Your task to perform on an android device: create a new album in the google photos Image 0: 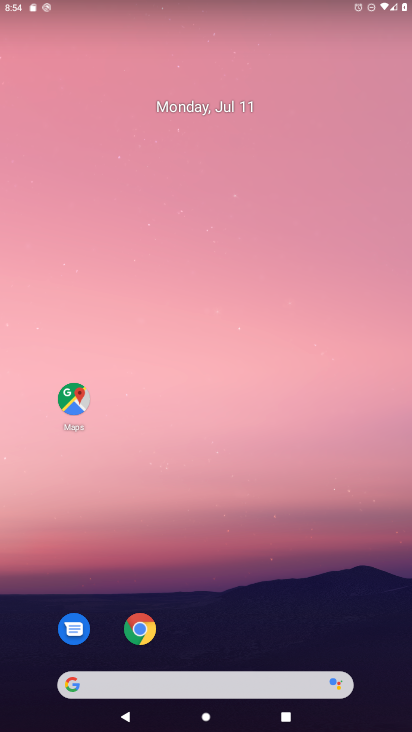
Step 0: drag from (240, 617) to (297, 109)
Your task to perform on an android device: create a new album in the google photos Image 1: 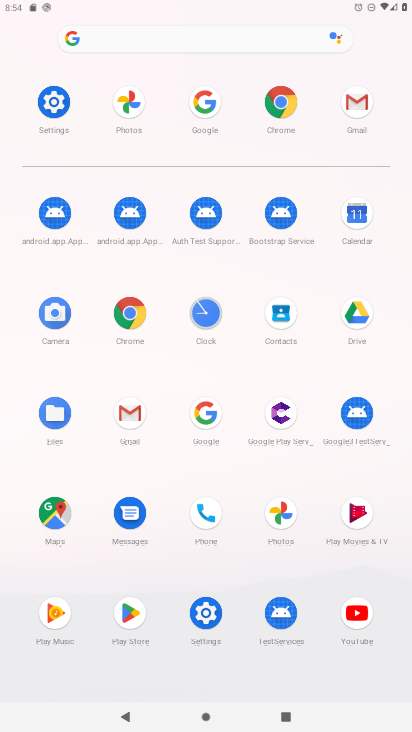
Step 1: click (280, 511)
Your task to perform on an android device: create a new album in the google photos Image 2: 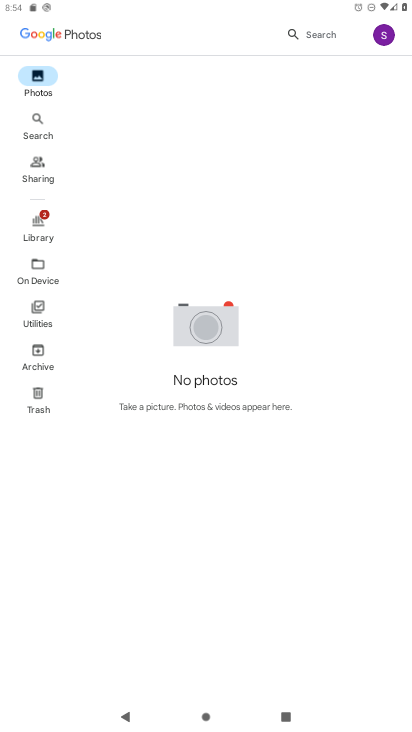
Step 2: click (39, 224)
Your task to perform on an android device: create a new album in the google photos Image 3: 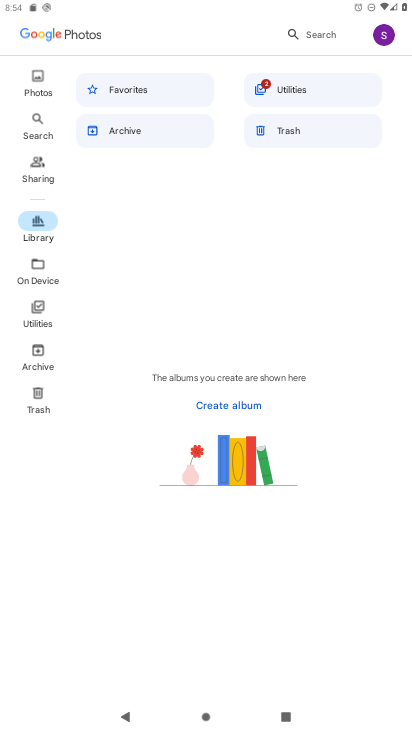
Step 3: click (212, 402)
Your task to perform on an android device: create a new album in the google photos Image 4: 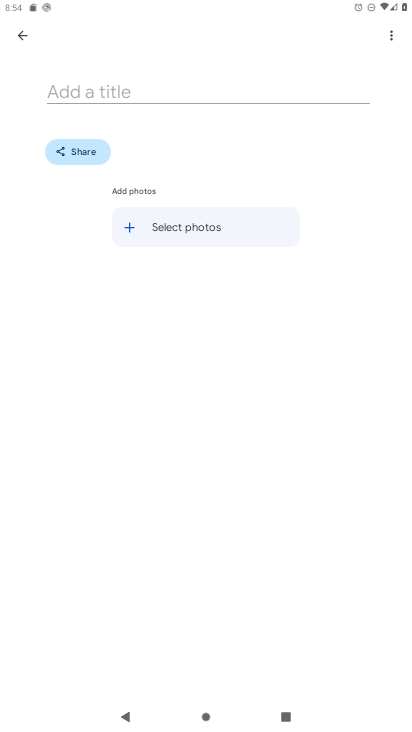
Step 4: click (185, 97)
Your task to perform on an android device: create a new album in the google photos Image 5: 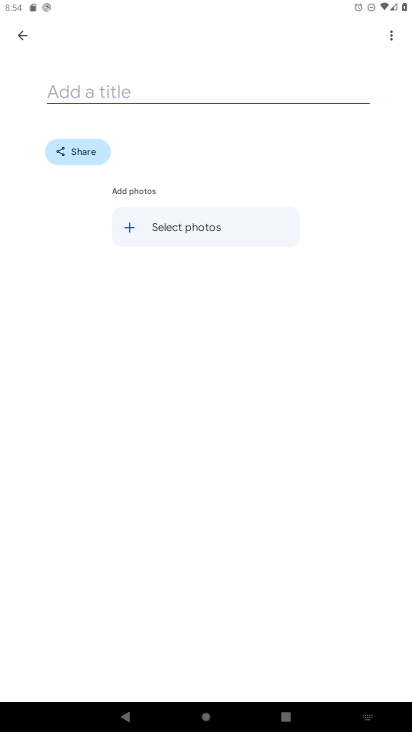
Step 5: type "hsghjs"
Your task to perform on an android device: create a new album in the google photos Image 6: 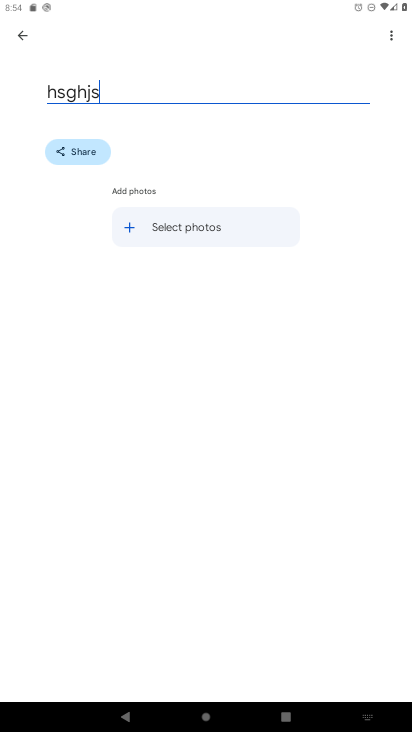
Step 6: click (128, 226)
Your task to perform on an android device: create a new album in the google photos Image 7: 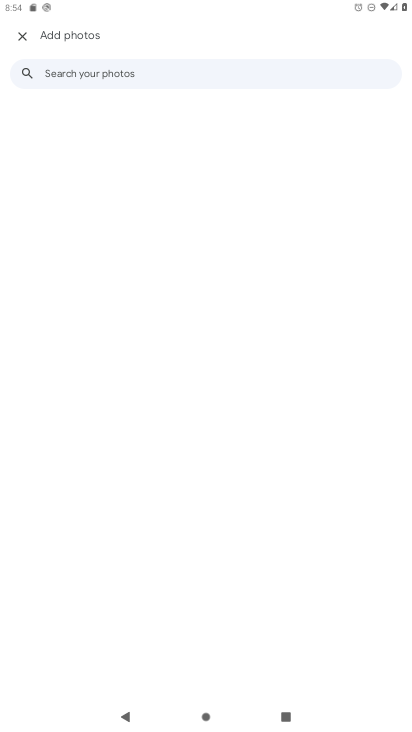
Step 7: task complete